Your task to perform on an android device: turn on data saver in the chrome app Image 0: 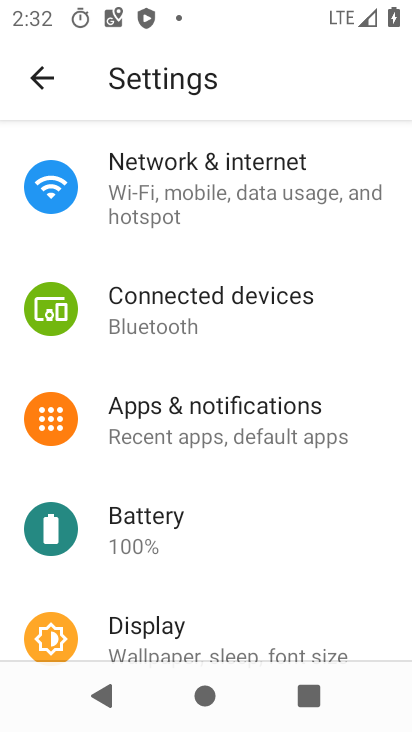
Step 0: press home button
Your task to perform on an android device: turn on data saver in the chrome app Image 1: 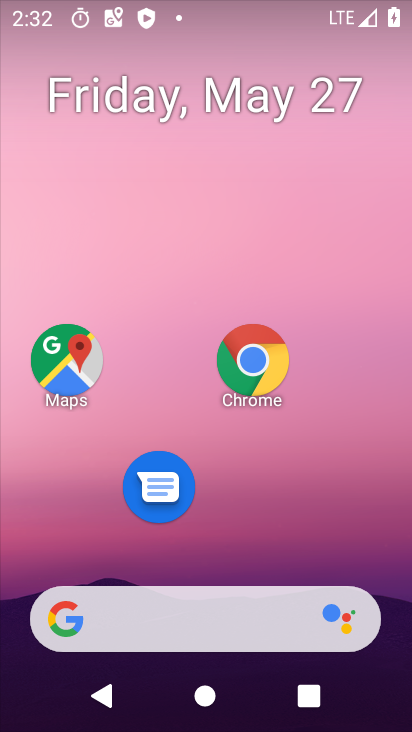
Step 1: click (257, 362)
Your task to perform on an android device: turn on data saver in the chrome app Image 2: 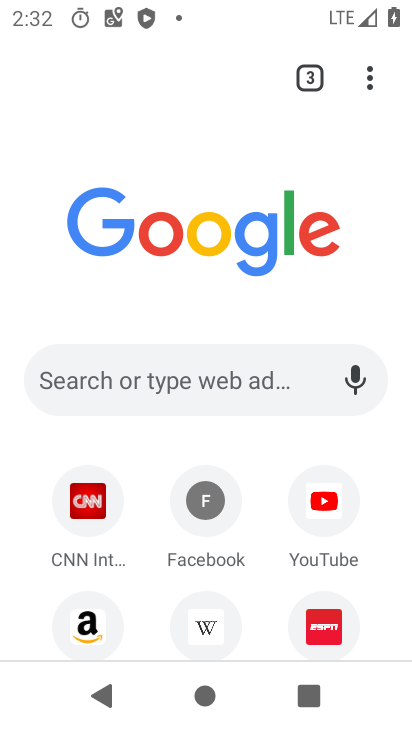
Step 2: click (367, 82)
Your task to perform on an android device: turn on data saver in the chrome app Image 3: 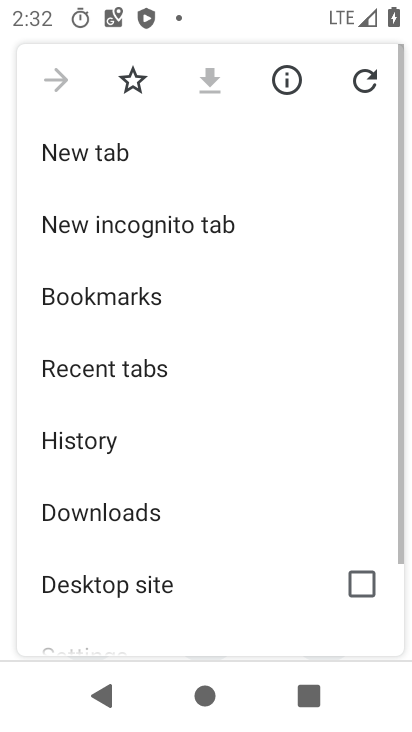
Step 3: drag from (196, 578) to (231, 220)
Your task to perform on an android device: turn on data saver in the chrome app Image 4: 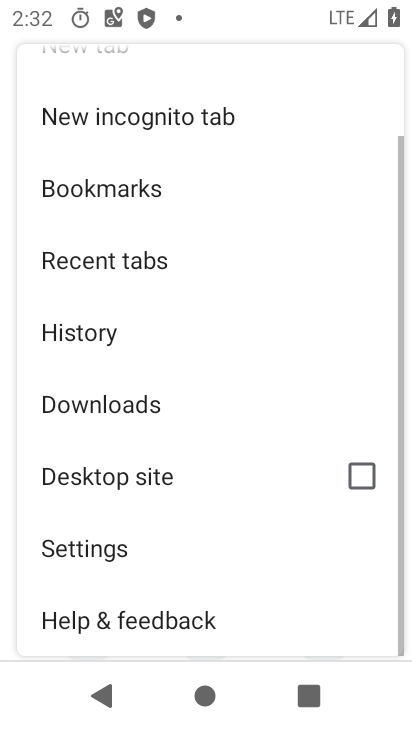
Step 4: click (151, 538)
Your task to perform on an android device: turn on data saver in the chrome app Image 5: 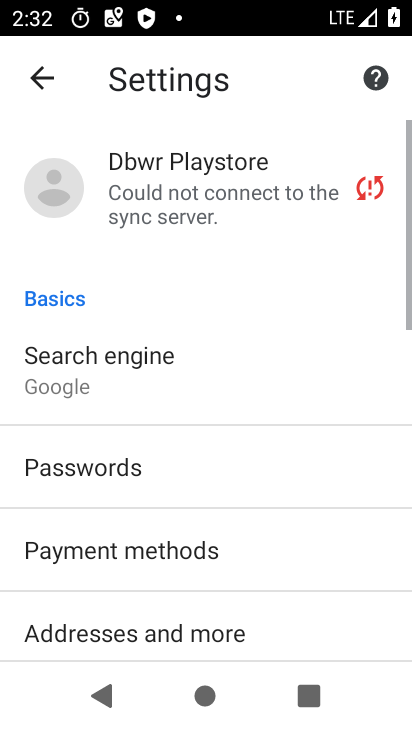
Step 5: drag from (281, 583) to (328, 52)
Your task to perform on an android device: turn on data saver in the chrome app Image 6: 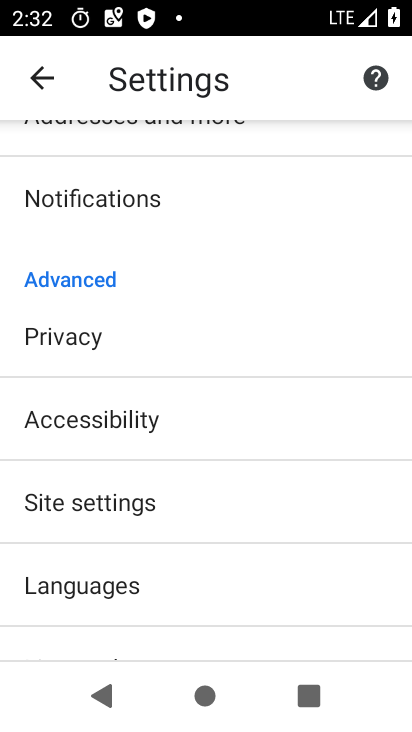
Step 6: drag from (215, 587) to (284, 274)
Your task to perform on an android device: turn on data saver in the chrome app Image 7: 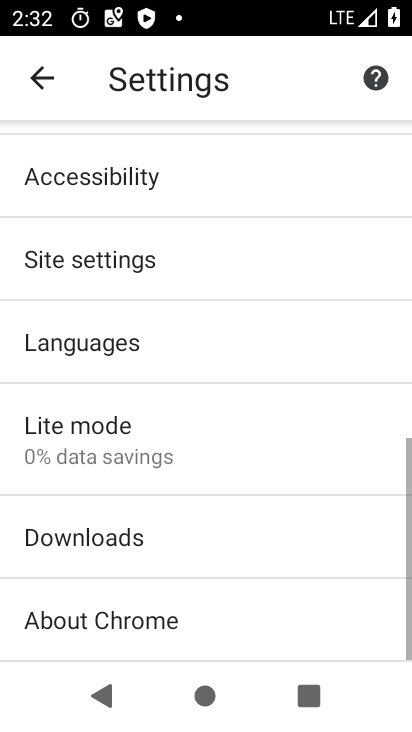
Step 7: click (97, 447)
Your task to perform on an android device: turn on data saver in the chrome app Image 8: 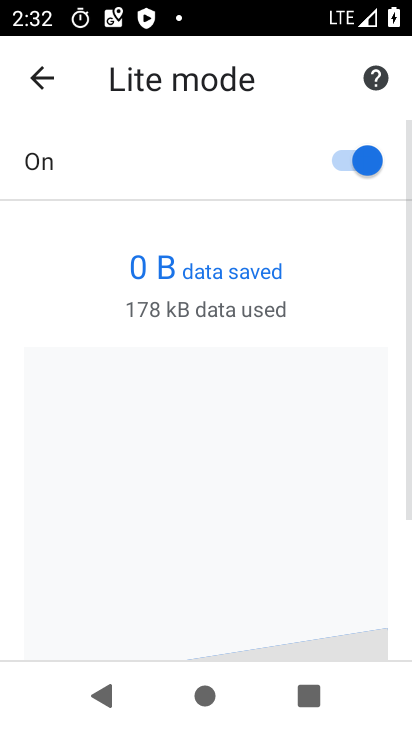
Step 8: task complete